Your task to perform on an android device: turn off notifications settings in the gmail app Image 0: 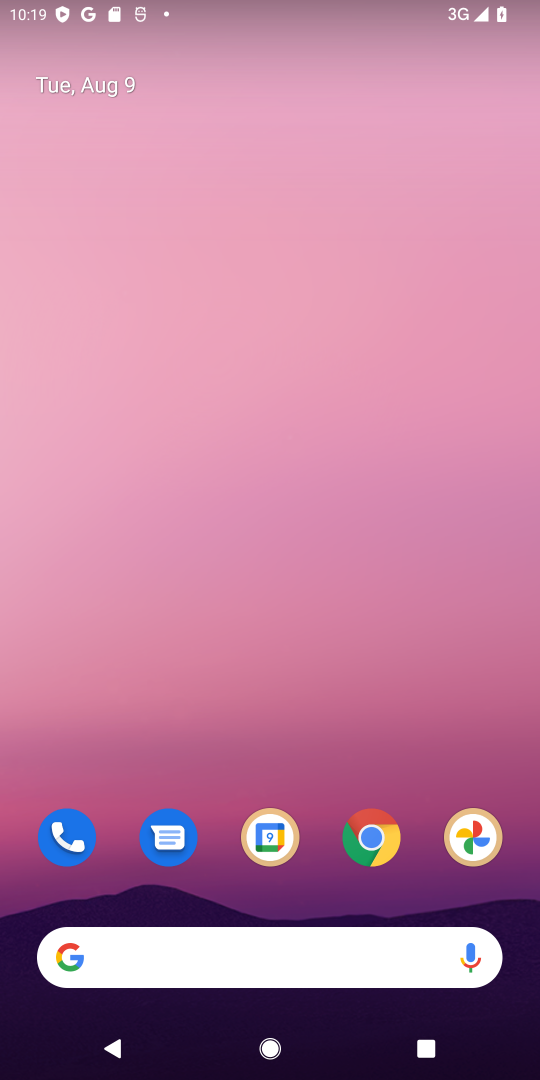
Step 0: drag from (262, 876) to (291, 86)
Your task to perform on an android device: turn off notifications settings in the gmail app Image 1: 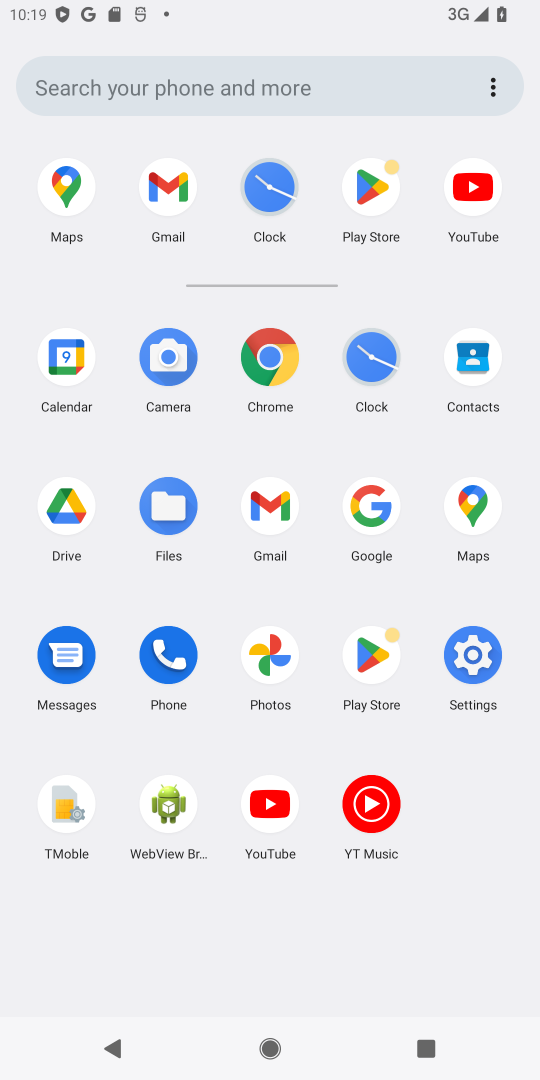
Step 1: click (275, 494)
Your task to perform on an android device: turn off notifications settings in the gmail app Image 2: 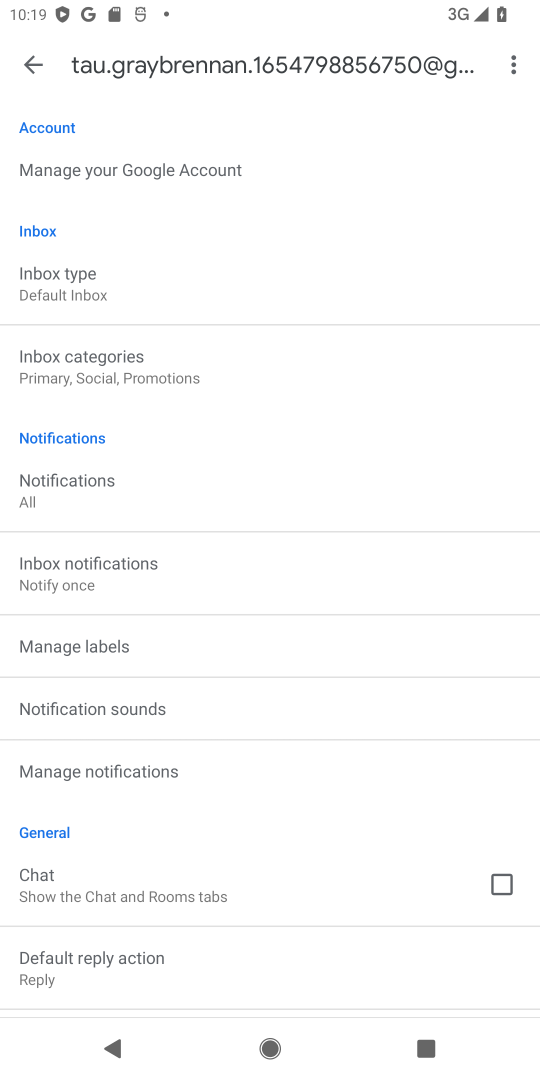
Step 2: click (85, 488)
Your task to perform on an android device: turn off notifications settings in the gmail app Image 3: 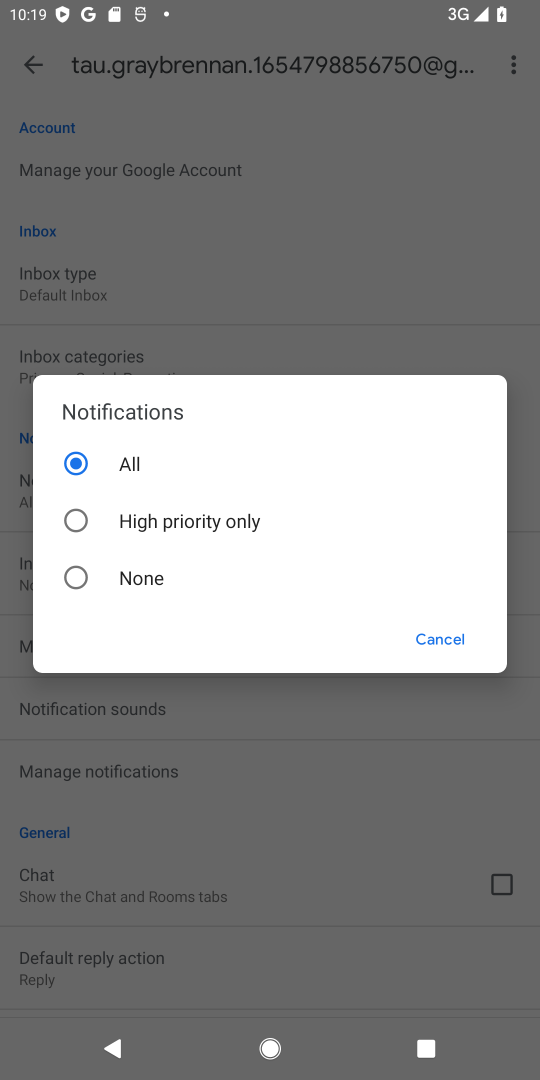
Step 3: click (81, 579)
Your task to perform on an android device: turn off notifications settings in the gmail app Image 4: 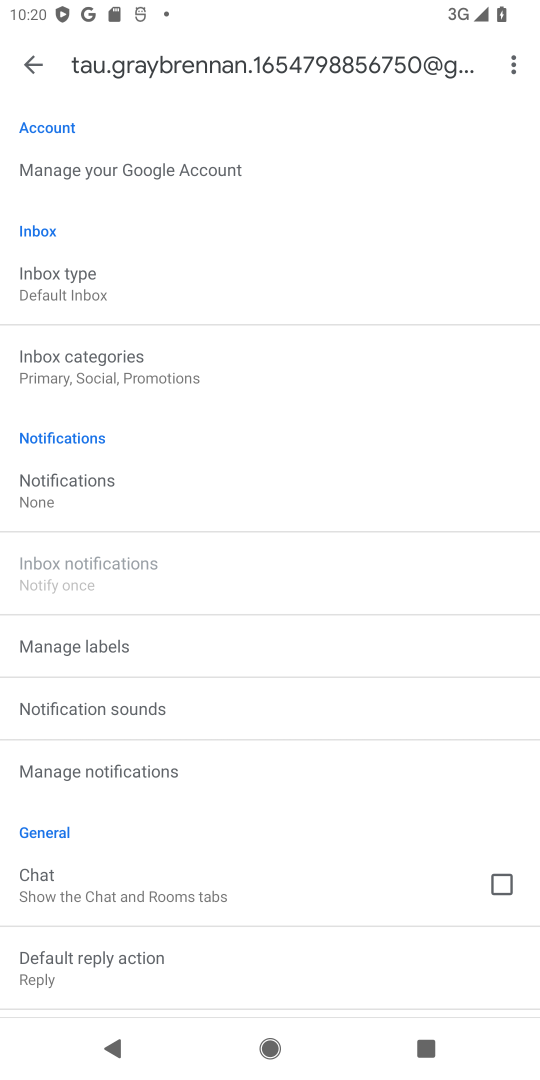
Step 4: task complete